Your task to perform on an android device: Open the calendar app, open the side menu, and click the "Day" option Image 0: 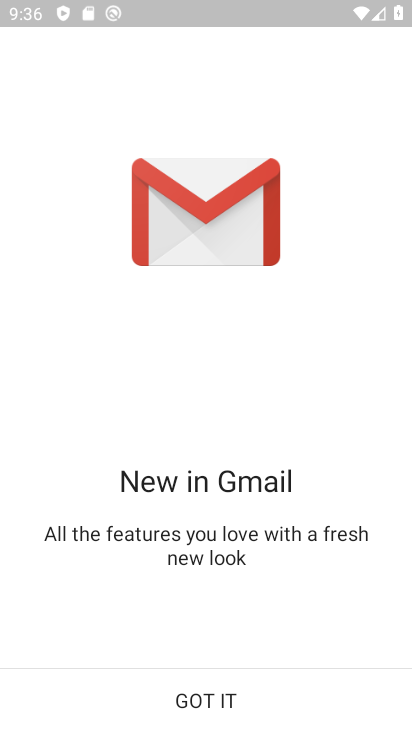
Step 0: press back button
Your task to perform on an android device: Open the calendar app, open the side menu, and click the "Day" option Image 1: 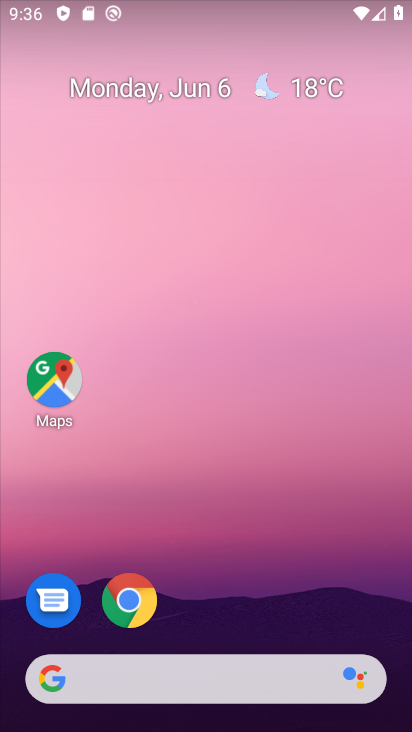
Step 1: drag from (200, 566) to (97, 15)
Your task to perform on an android device: Open the calendar app, open the side menu, and click the "Day" option Image 2: 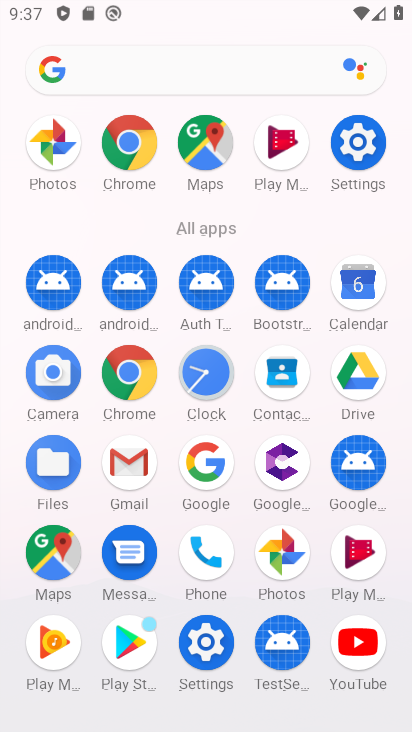
Step 2: click (359, 275)
Your task to perform on an android device: Open the calendar app, open the side menu, and click the "Day" option Image 3: 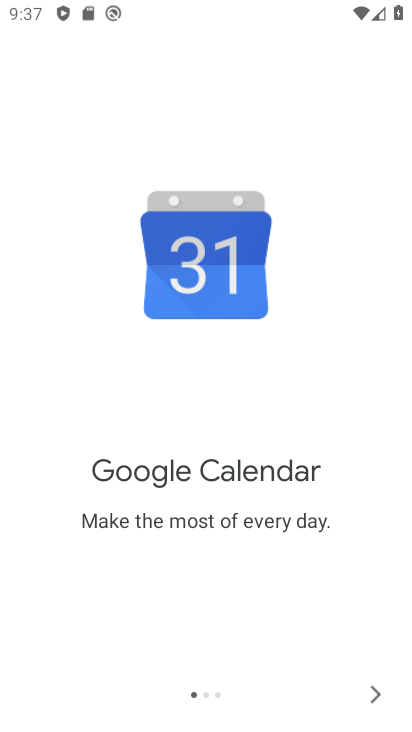
Step 3: click (374, 689)
Your task to perform on an android device: Open the calendar app, open the side menu, and click the "Day" option Image 4: 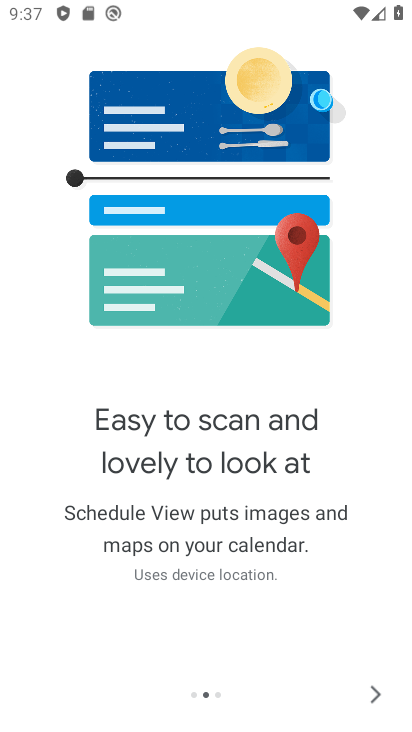
Step 4: click (374, 688)
Your task to perform on an android device: Open the calendar app, open the side menu, and click the "Day" option Image 5: 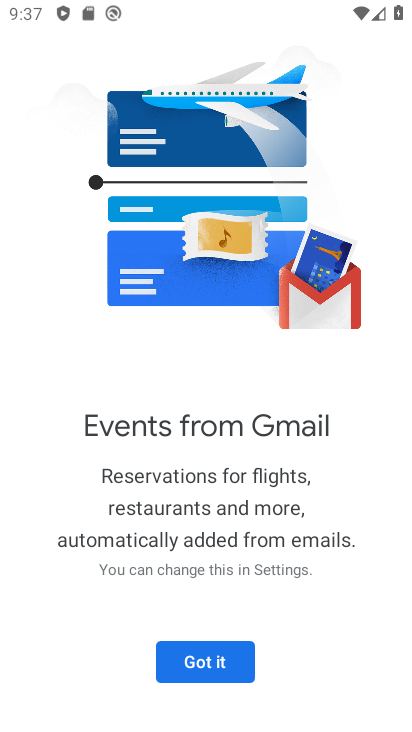
Step 5: click (217, 658)
Your task to perform on an android device: Open the calendar app, open the side menu, and click the "Day" option Image 6: 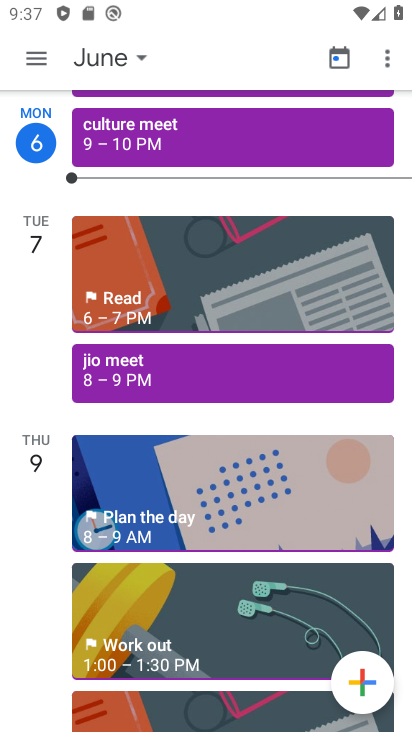
Step 6: click (41, 54)
Your task to perform on an android device: Open the calendar app, open the side menu, and click the "Day" option Image 7: 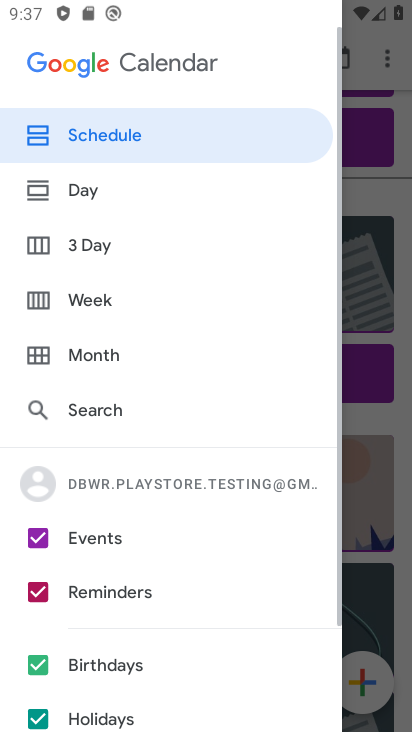
Step 7: click (95, 194)
Your task to perform on an android device: Open the calendar app, open the side menu, and click the "Day" option Image 8: 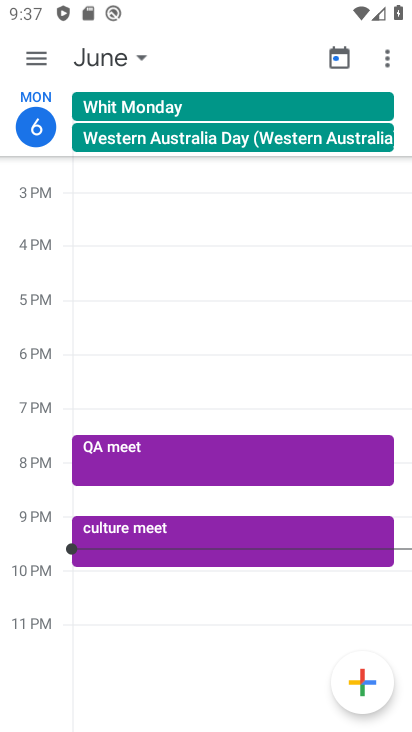
Step 8: task complete